Your task to perform on an android device: turn on priority inbox in the gmail app Image 0: 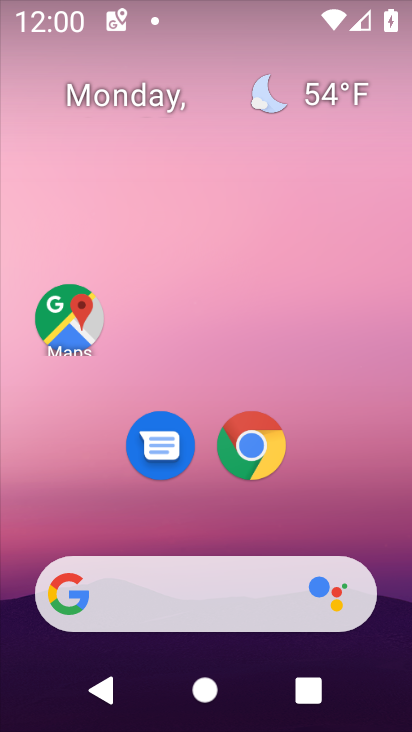
Step 0: drag from (379, 516) to (379, 160)
Your task to perform on an android device: turn on priority inbox in the gmail app Image 1: 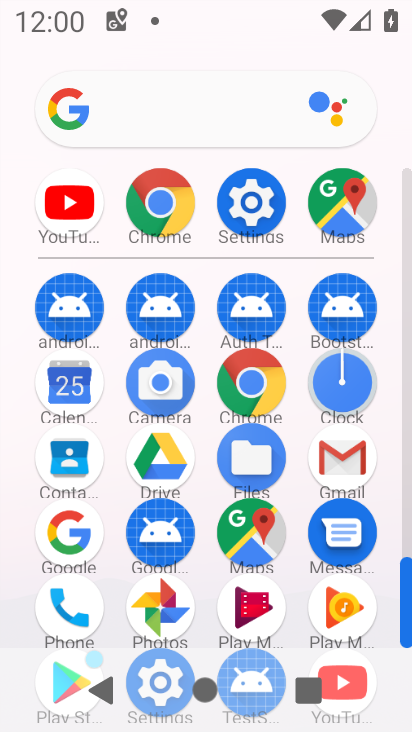
Step 1: click (355, 458)
Your task to perform on an android device: turn on priority inbox in the gmail app Image 2: 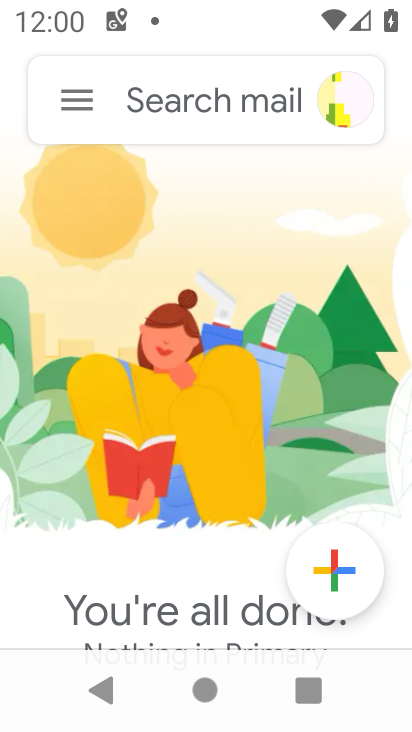
Step 2: click (69, 107)
Your task to perform on an android device: turn on priority inbox in the gmail app Image 3: 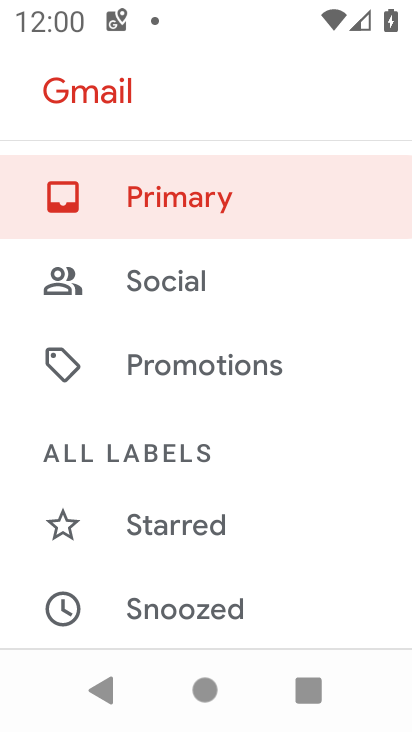
Step 3: drag from (280, 640) to (291, 260)
Your task to perform on an android device: turn on priority inbox in the gmail app Image 4: 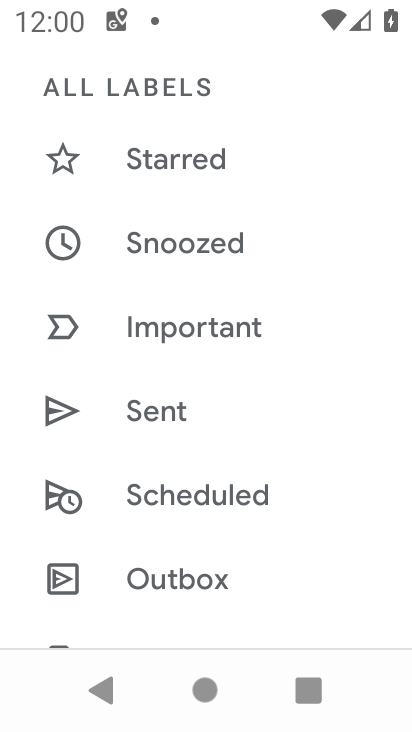
Step 4: drag from (288, 609) to (289, 211)
Your task to perform on an android device: turn on priority inbox in the gmail app Image 5: 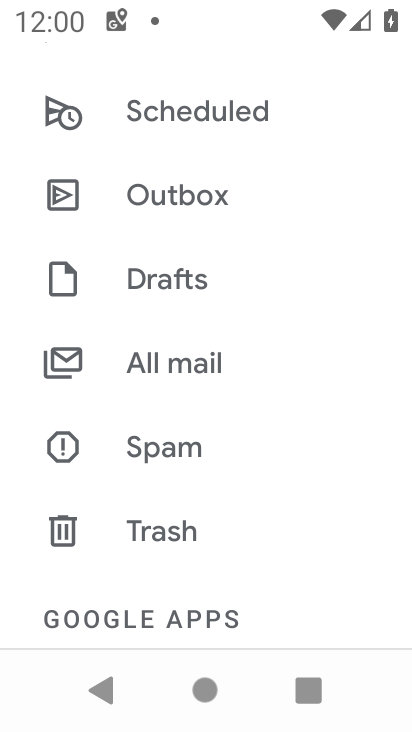
Step 5: drag from (251, 605) to (290, 252)
Your task to perform on an android device: turn on priority inbox in the gmail app Image 6: 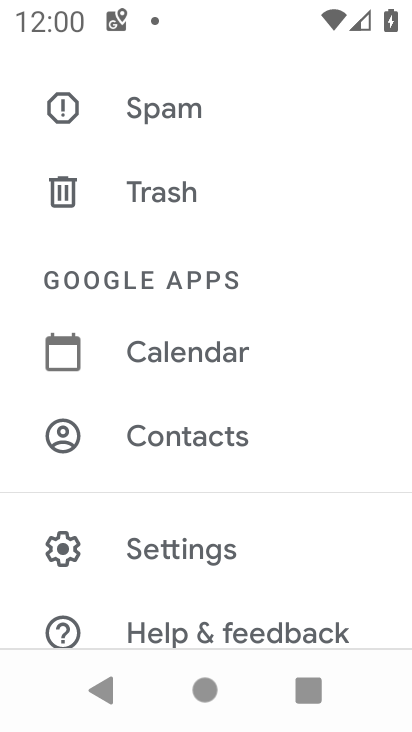
Step 6: click (229, 537)
Your task to perform on an android device: turn on priority inbox in the gmail app Image 7: 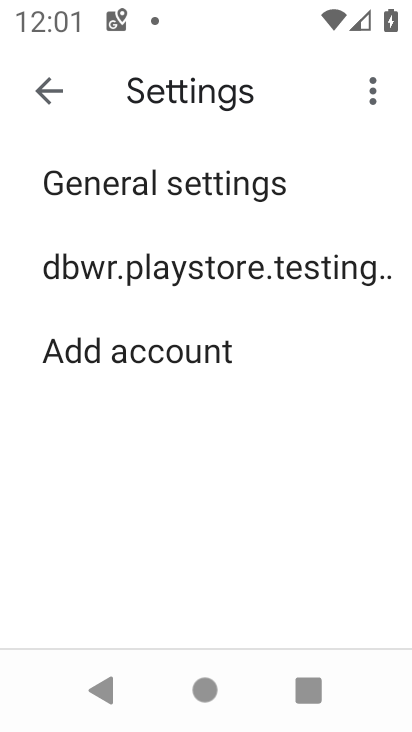
Step 7: click (229, 276)
Your task to perform on an android device: turn on priority inbox in the gmail app Image 8: 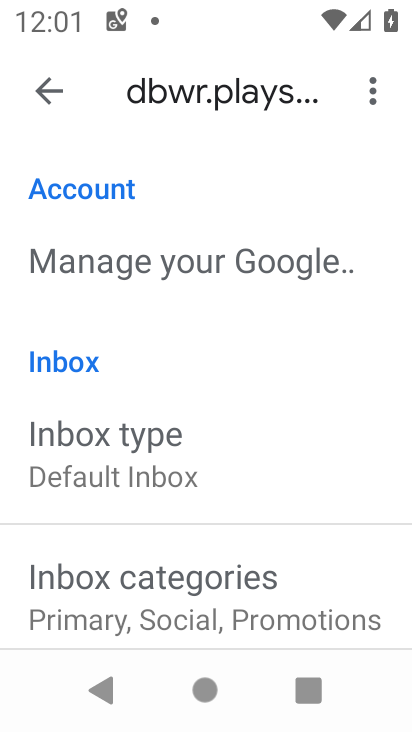
Step 8: click (184, 469)
Your task to perform on an android device: turn on priority inbox in the gmail app Image 9: 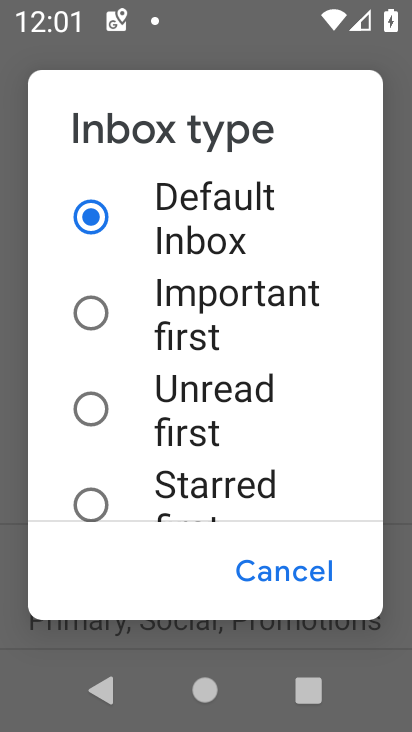
Step 9: drag from (136, 494) to (135, 194)
Your task to perform on an android device: turn on priority inbox in the gmail app Image 10: 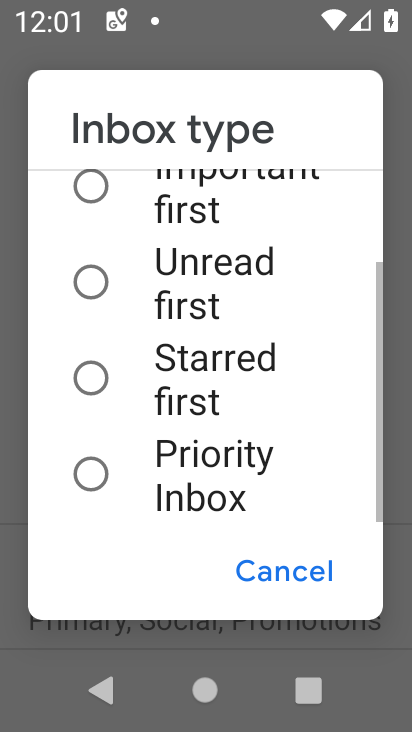
Step 10: click (109, 467)
Your task to perform on an android device: turn on priority inbox in the gmail app Image 11: 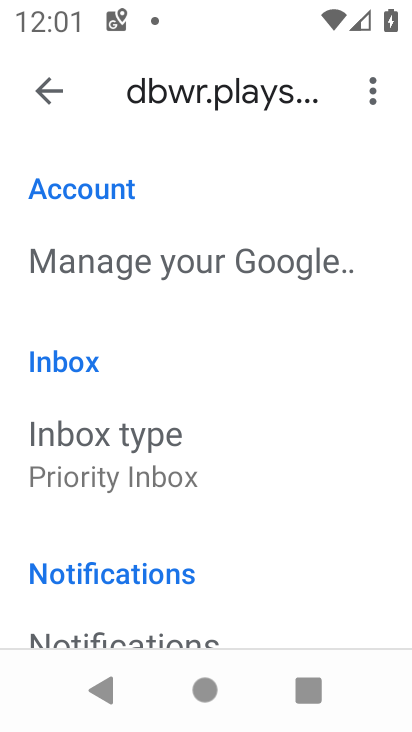
Step 11: task complete